Your task to perform on an android device: install app "Facebook Lite" Image 0: 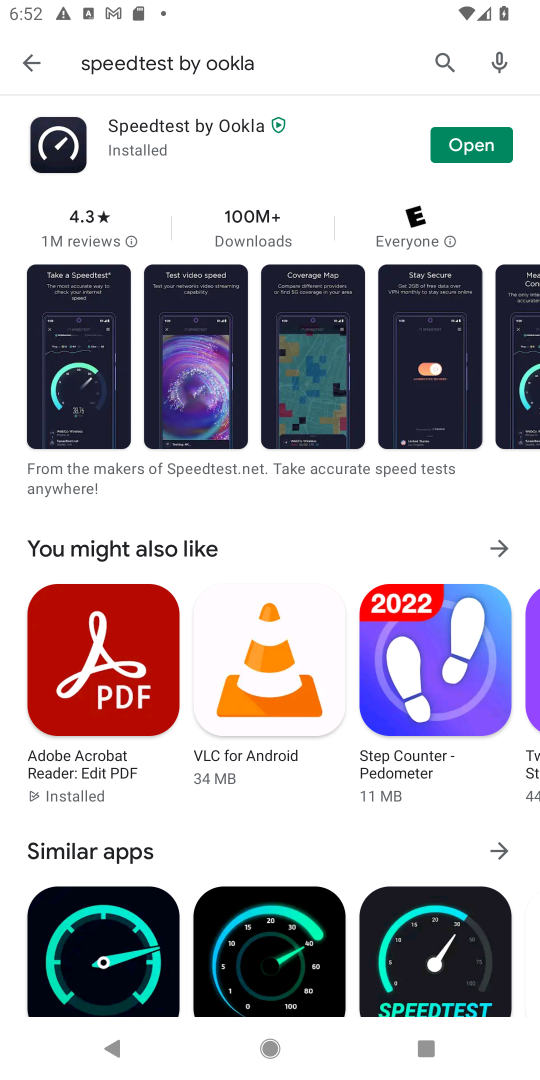
Step 0: press home button
Your task to perform on an android device: install app "Facebook Lite" Image 1: 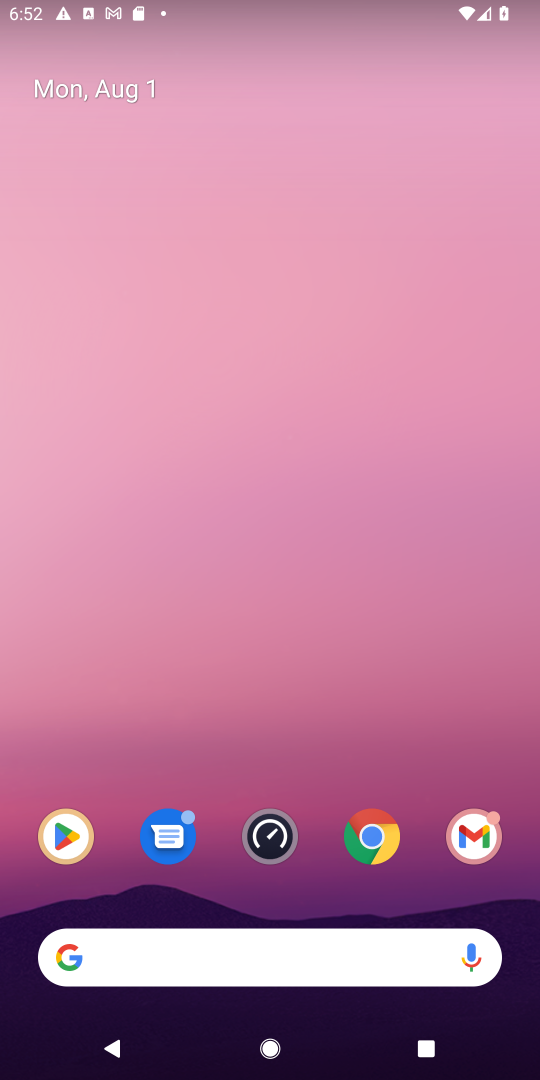
Step 1: click (67, 826)
Your task to perform on an android device: install app "Facebook Lite" Image 2: 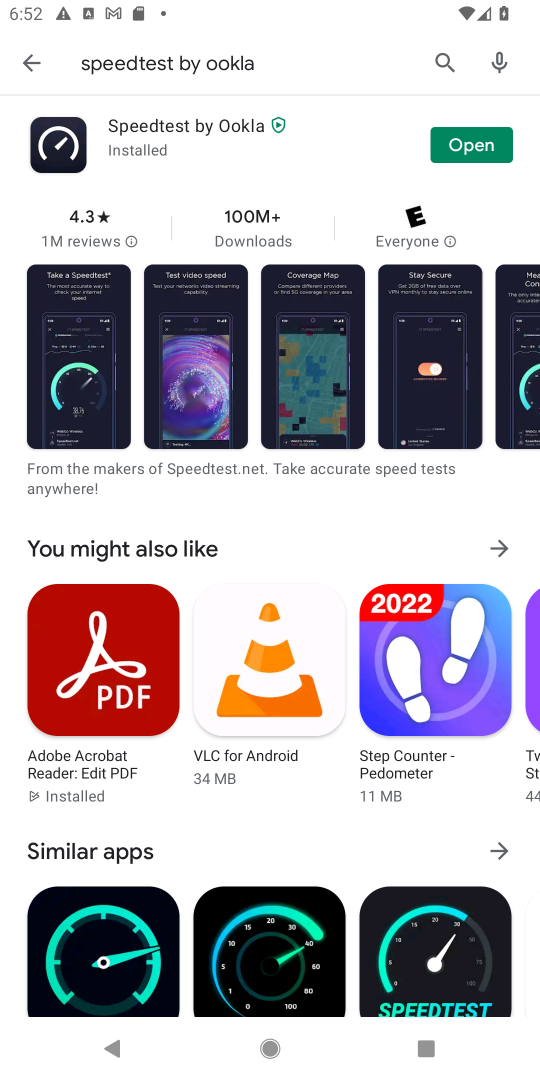
Step 2: click (443, 58)
Your task to perform on an android device: install app "Facebook Lite" Image 3: 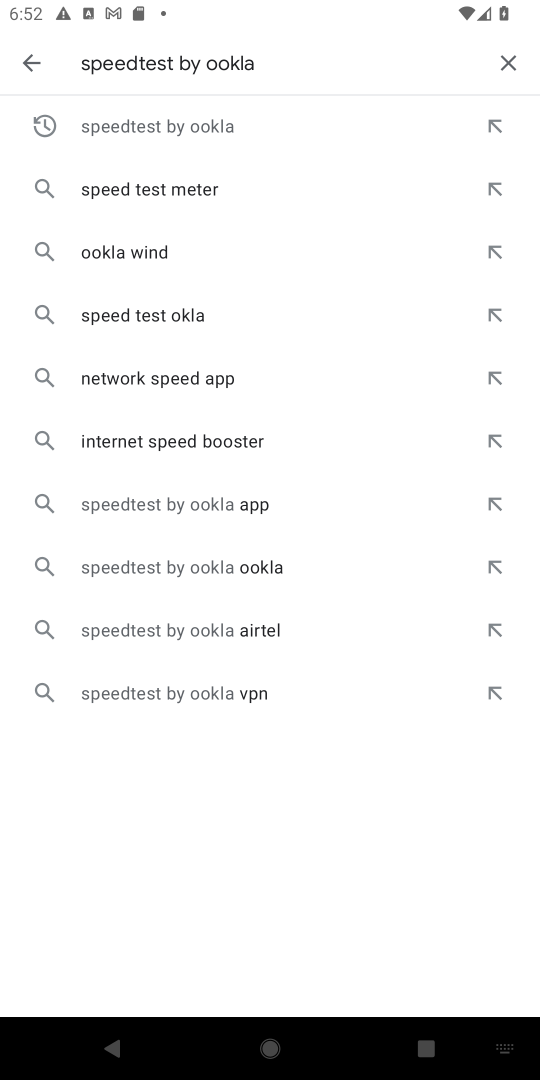
Step 3: click (514, 46)
Your task to perform on an android device: install app "Facebook Lite" Image 4: 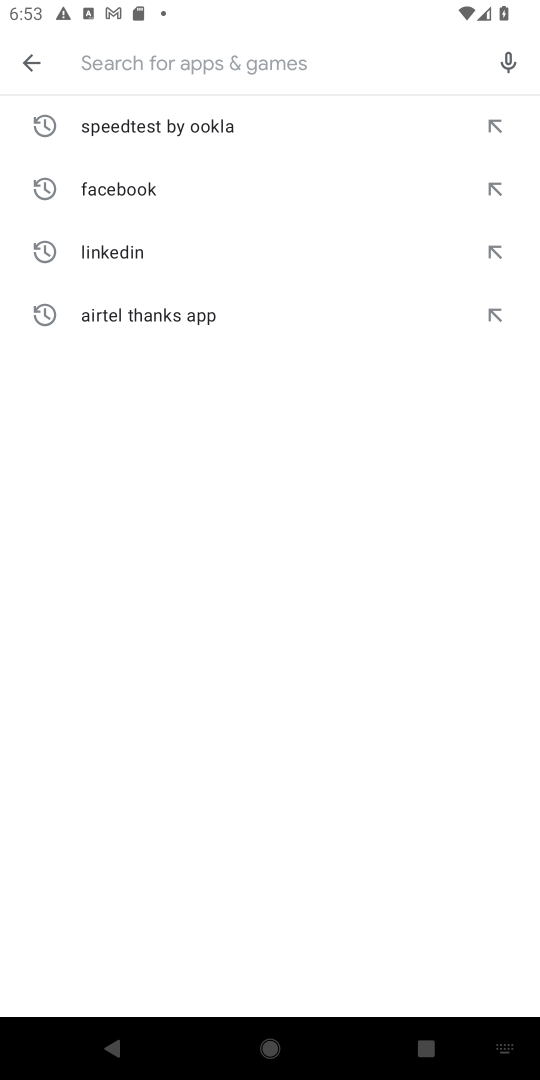
Step 4: type "Facebook Lite"
Your task to perform on an android device: install app "Facebook Lite" Image 5: 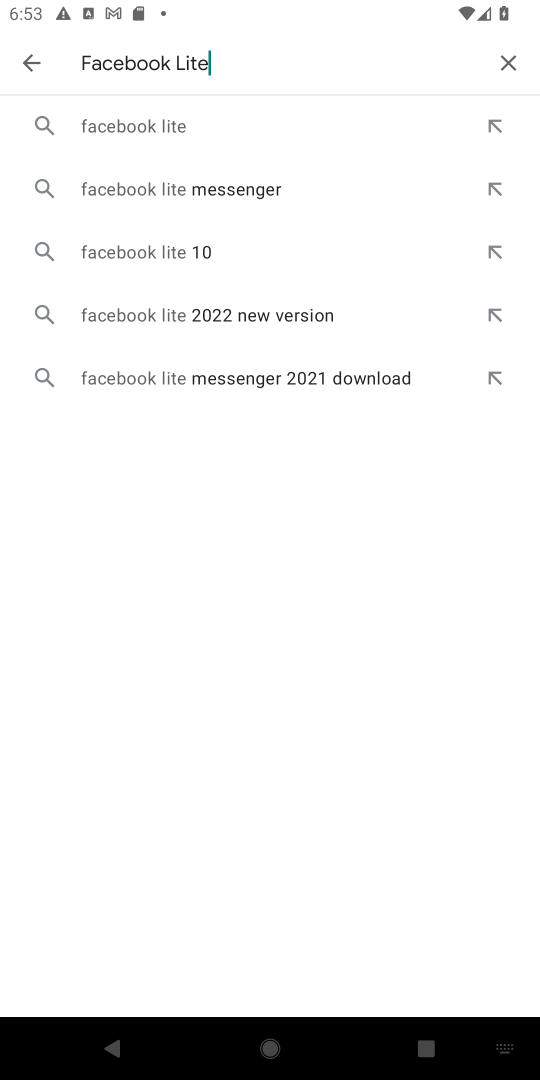
Step 5: click (147, 125)
Your task to perform on an android device: install app "Facebook Lite" Image 6: 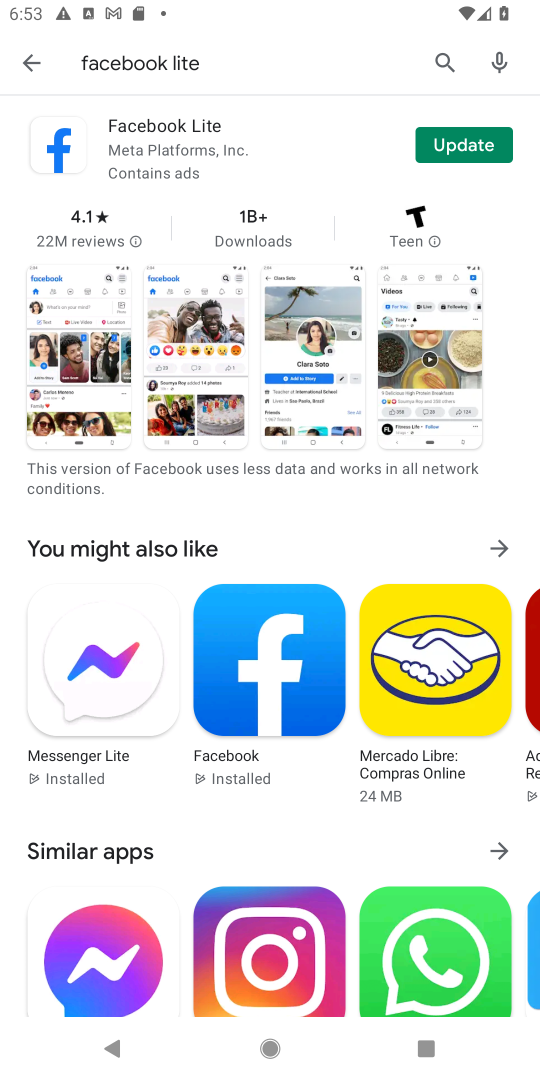
Step 6: click (138, 150)
Your task to perform on an android device: install app "Facebook Lite" Image 7: 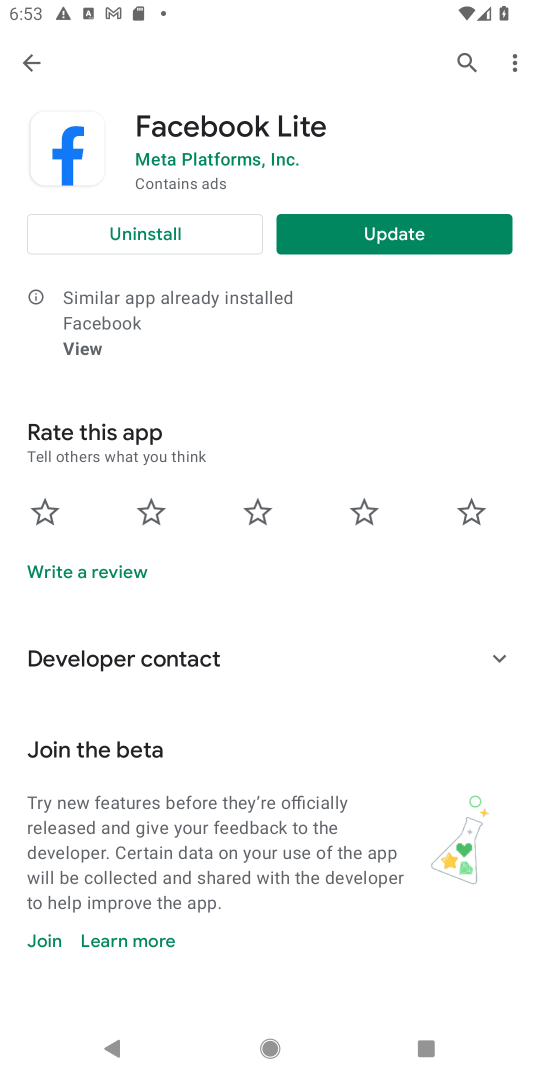
Step 7: task complete